Your task to perform on an android device: Search for sushi restaurants on Maps Image 0: 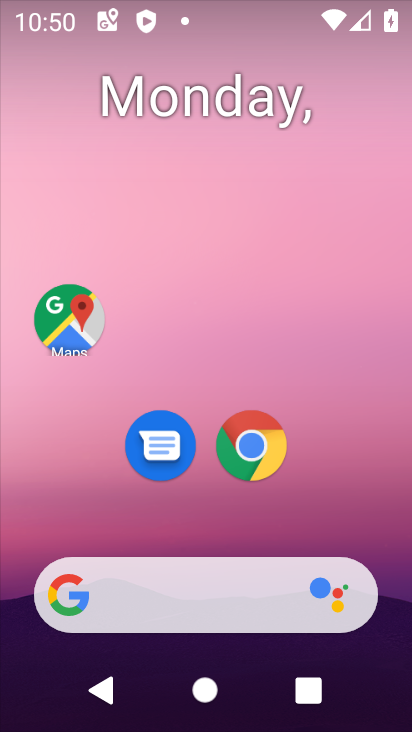
Step 0: click (65, 316)
Your task to perform on an android device: Search for sushi restaurants on Maps Image 1: 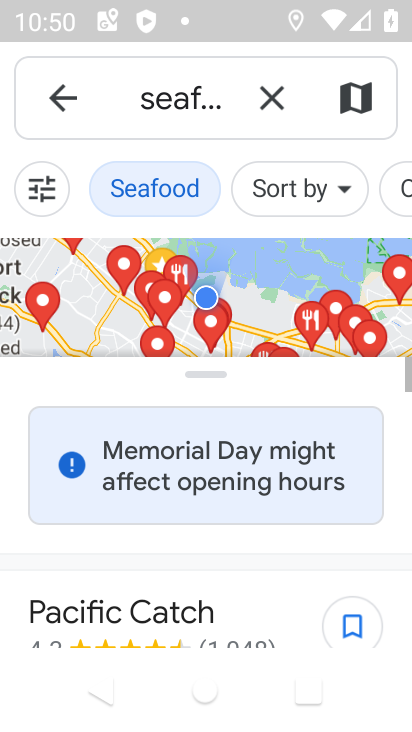
Step 1: click (270, 92)
Your task to perform on an android device: Search for sushi restaurants on Maps Image 2: 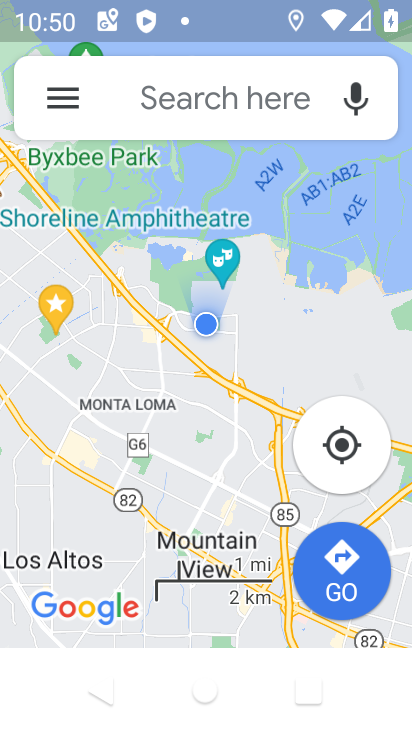
Step 2: click (167, 97)
Your task to perform on an android device: Search for sushi restaurants on Maps Image 3: 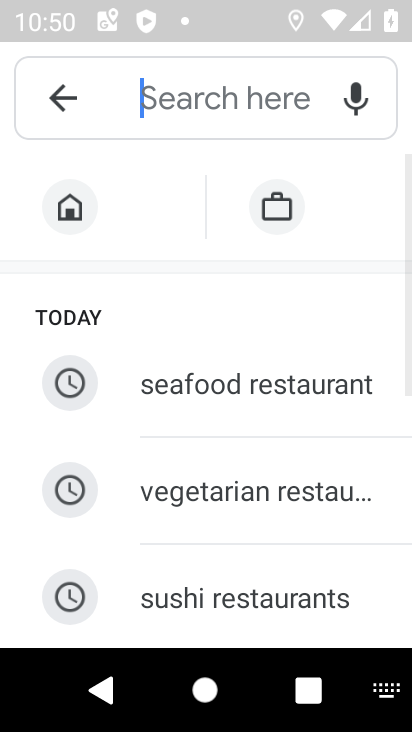
Step 3: click (214, 607)
Your task to perform on an android device: Search for sushi restaurants on Maps Image 4: 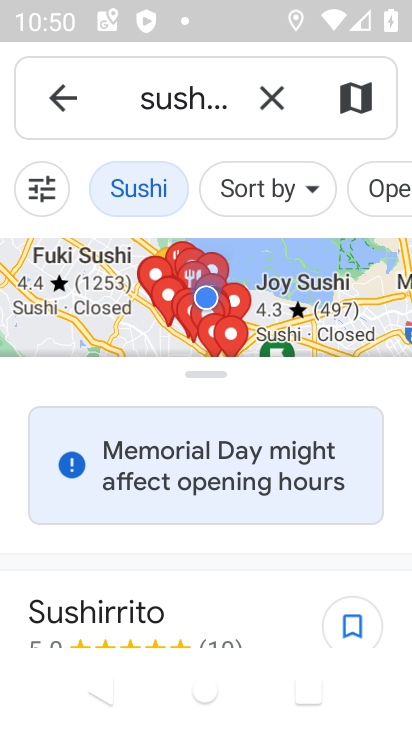
Step 4: task complete